Your task to perform on an android device: check storage Image 0: 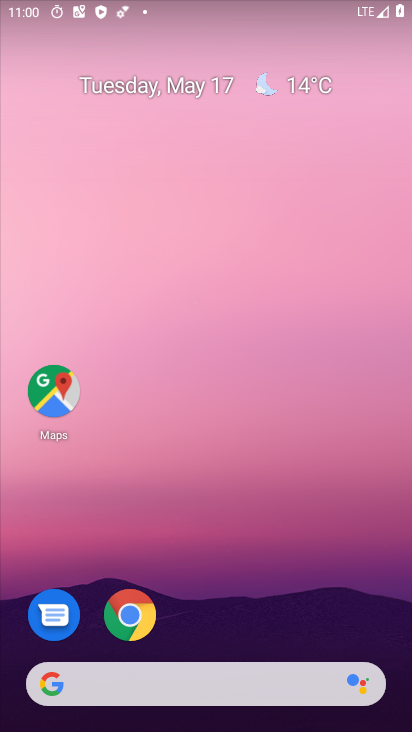
Step 0: press home button
Your task to perform on an android device: check storage Image 1: 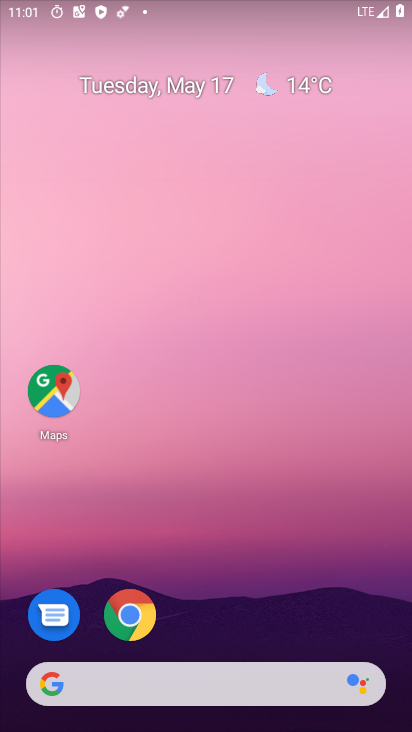
Step 1: drag from (206, 689) to (326, 108)
Your task to perform on an android device: check storage Image 2: 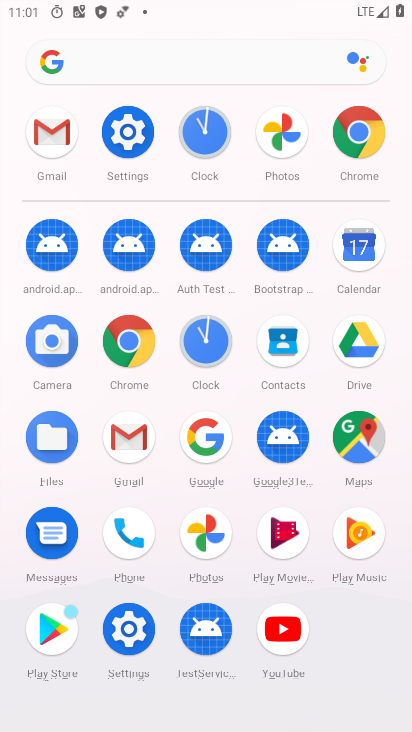
Step 2: click (130, 141)
Your task to perform on an android device: check storage Image 3: 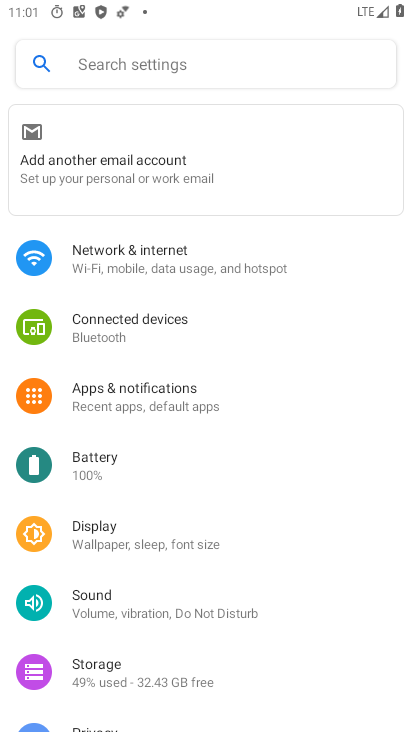
Step 3: click (126, 673)
Your task to perform on an android device: check storage Image 4: 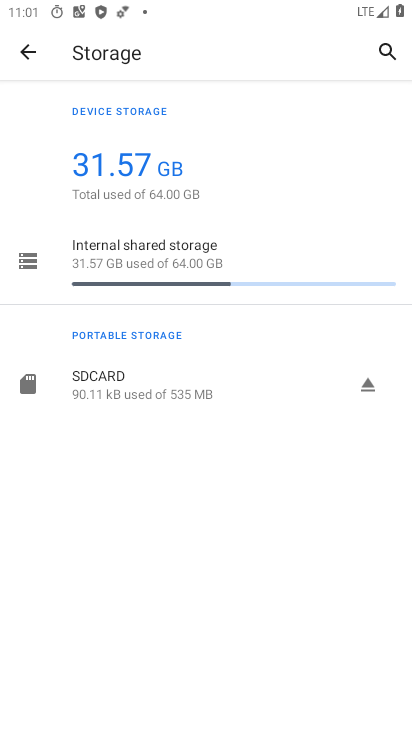
Step 4: task complete